Your task to perform on an android device: Go to eBay Image 0: 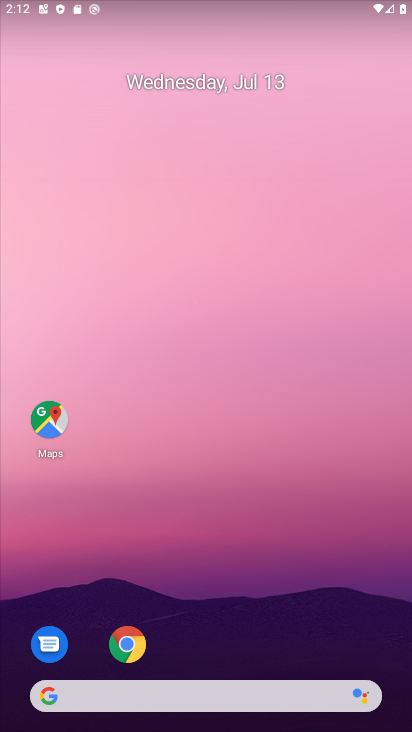
Step 0: click (131, 644)
Your task to perform on an android device: Go to eBay Image 1: 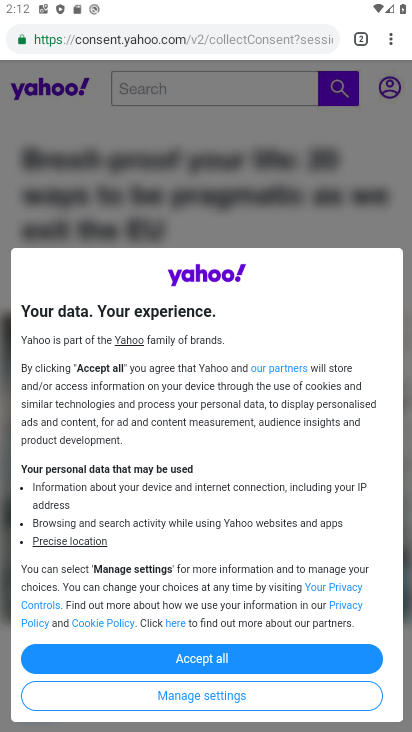
Step 1: click (361, 39)
Your task to perform on an android device: Go to eBay Image 2: 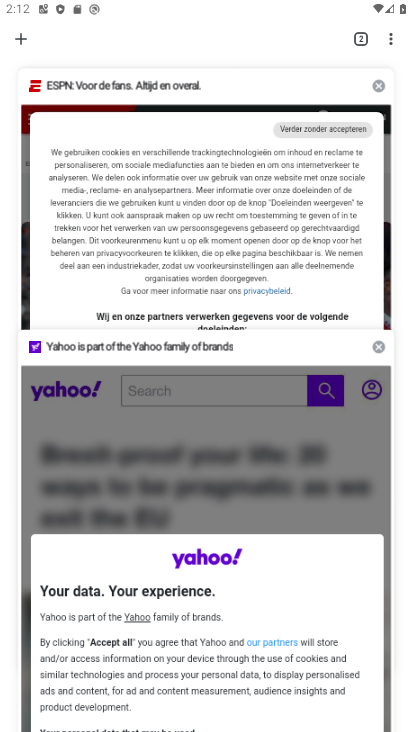
Step 2: click (24, 38)
Your task to perform on an android device: Go to eBay Image 3: 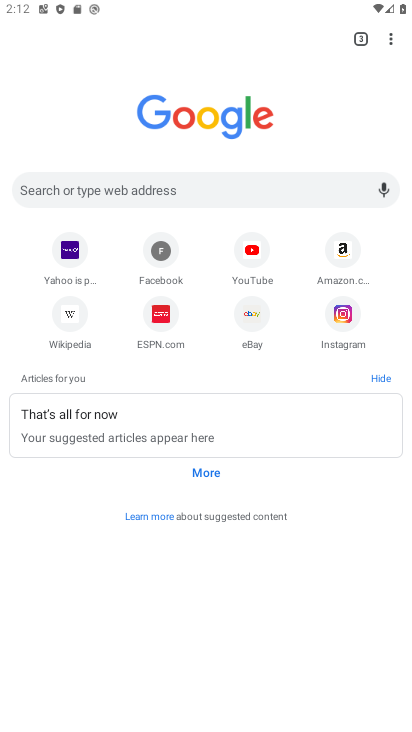
Step 3: click (248, 328)
Your task to perform on an android device: Go to eBay Image 4: 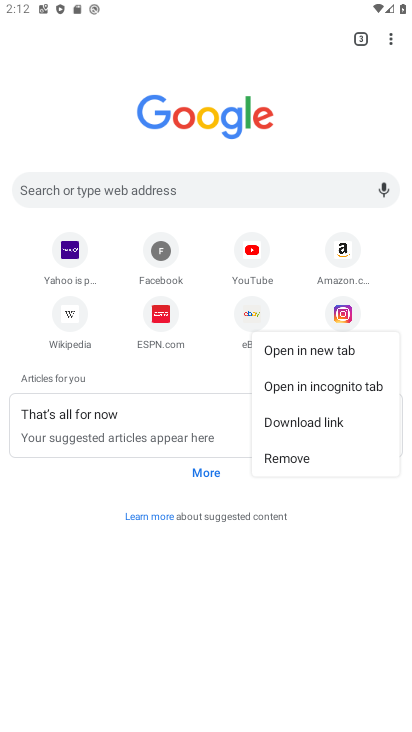
Step 4: click (247, 307)
Your task to perform on an android device: Go to eBay Image 5: 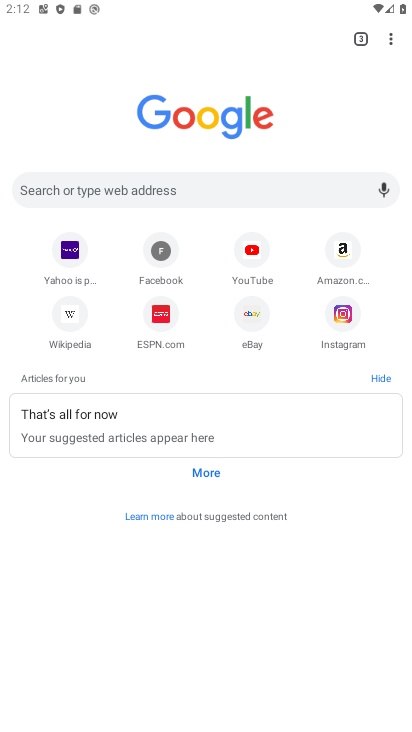
Step 5: click (249, 319)
Your task to perform on an android device: Go to eBay Image 6: 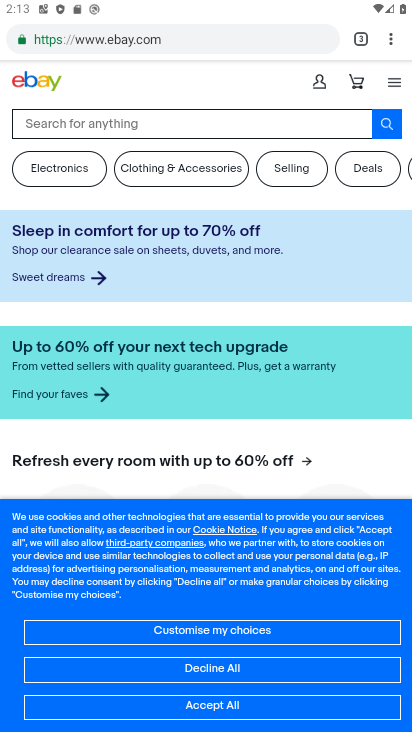
Step 6: task complete